Your task to perform on an android device: Open Google Chrome Image 0: 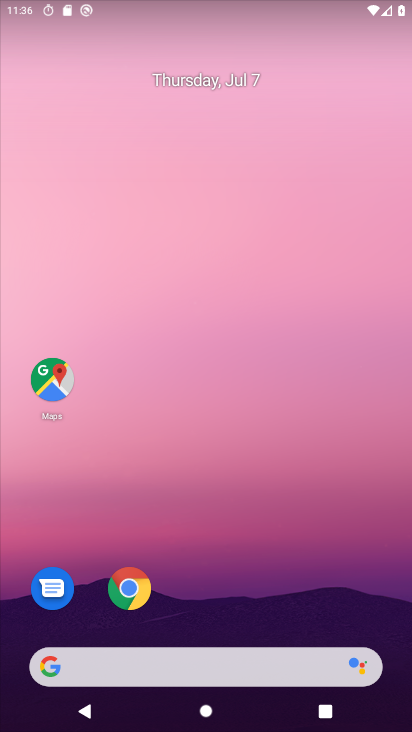
Step 0: click (129, 575)
Your task to perform on an android device: Open Google Chrome Image 1: 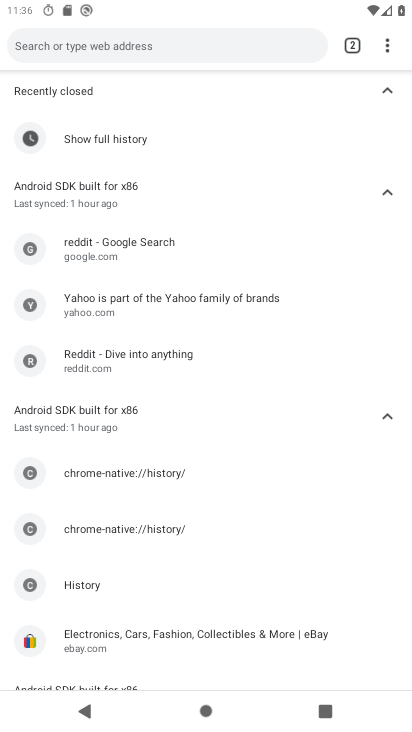
Step 1: task complete